Your task to perform on an android device: turn on airplane mode Image 0: 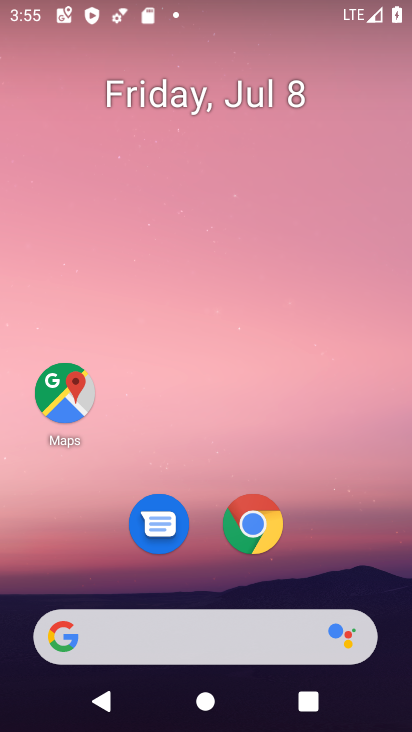
Step 0: drag from (211, 481) to (267, 37)
Your task to perform on an android device: turn on airplane mode Image 1: 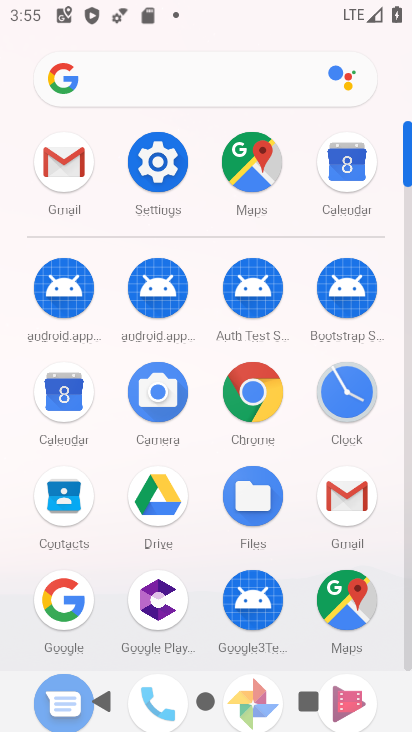
Step 1: click (157, 161)
Your task to perform on an android device: turn on airplane mode Image 2: 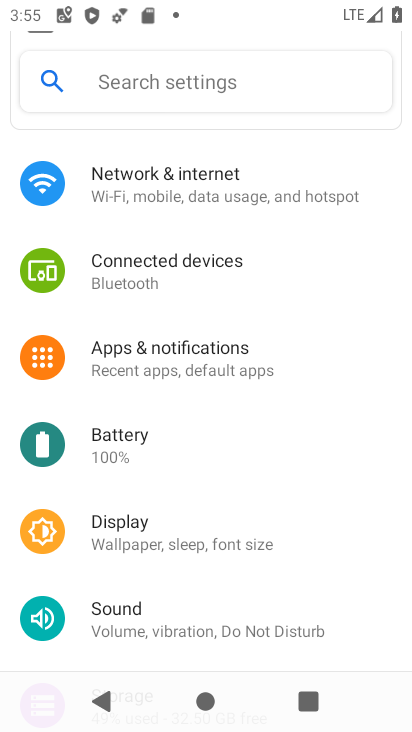
Step 2: click (209, 184)
Your task to perform on an android device: turn on airplane mode Image 3: 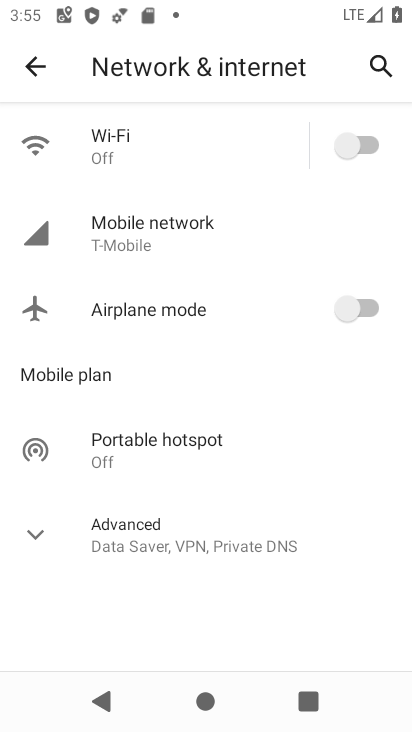
Step 3: click (365, 305)
Your task to perform on an android device: turn on airplane mode Image 4: 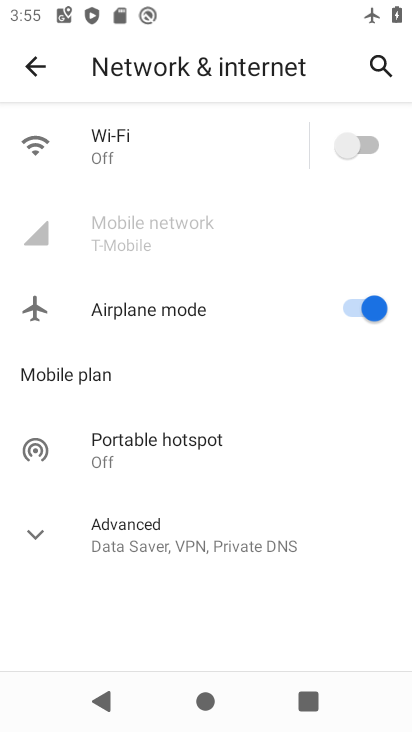
Step 4: task complete